Your task to perform on an android device: Open Chrome and go to settings Image 0: 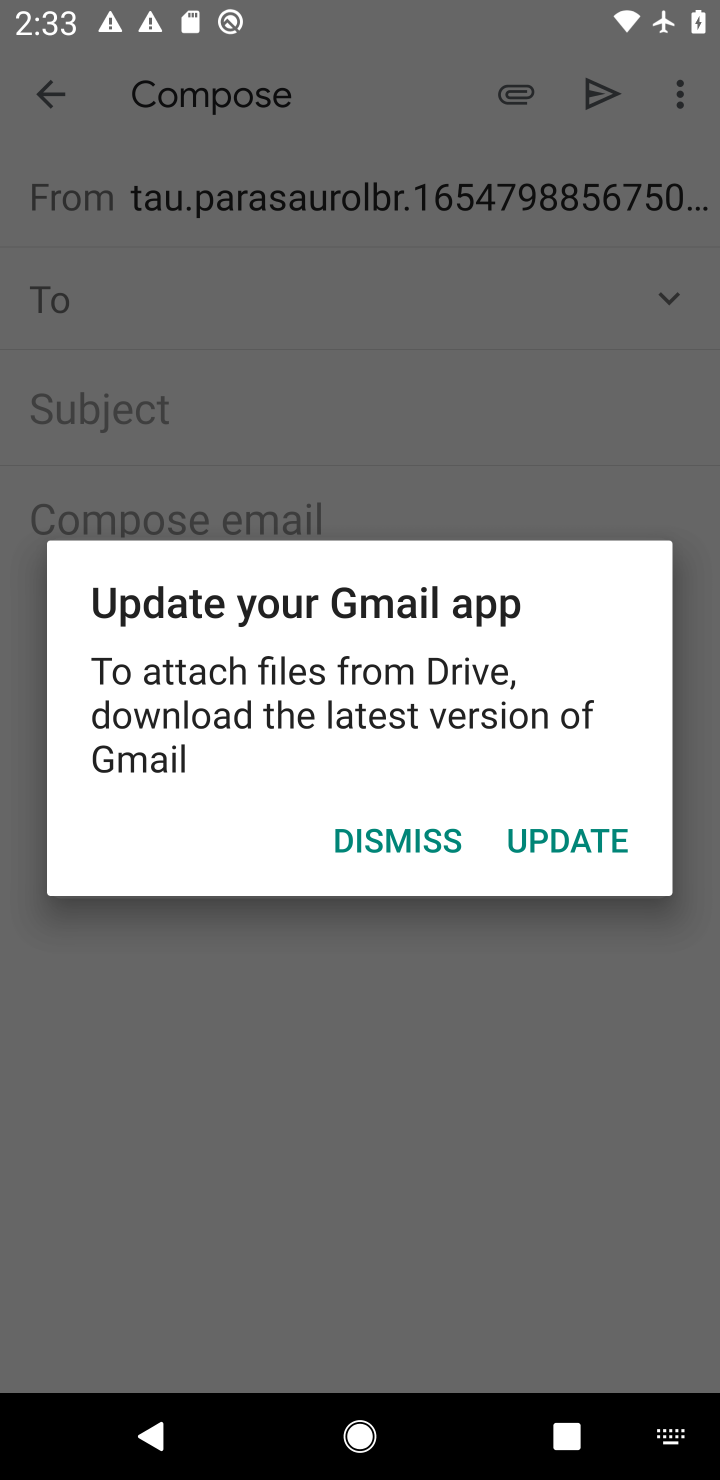
Step 0: press home button
Your task to perform on an android device: Open Chrome and go to settings Image 1: 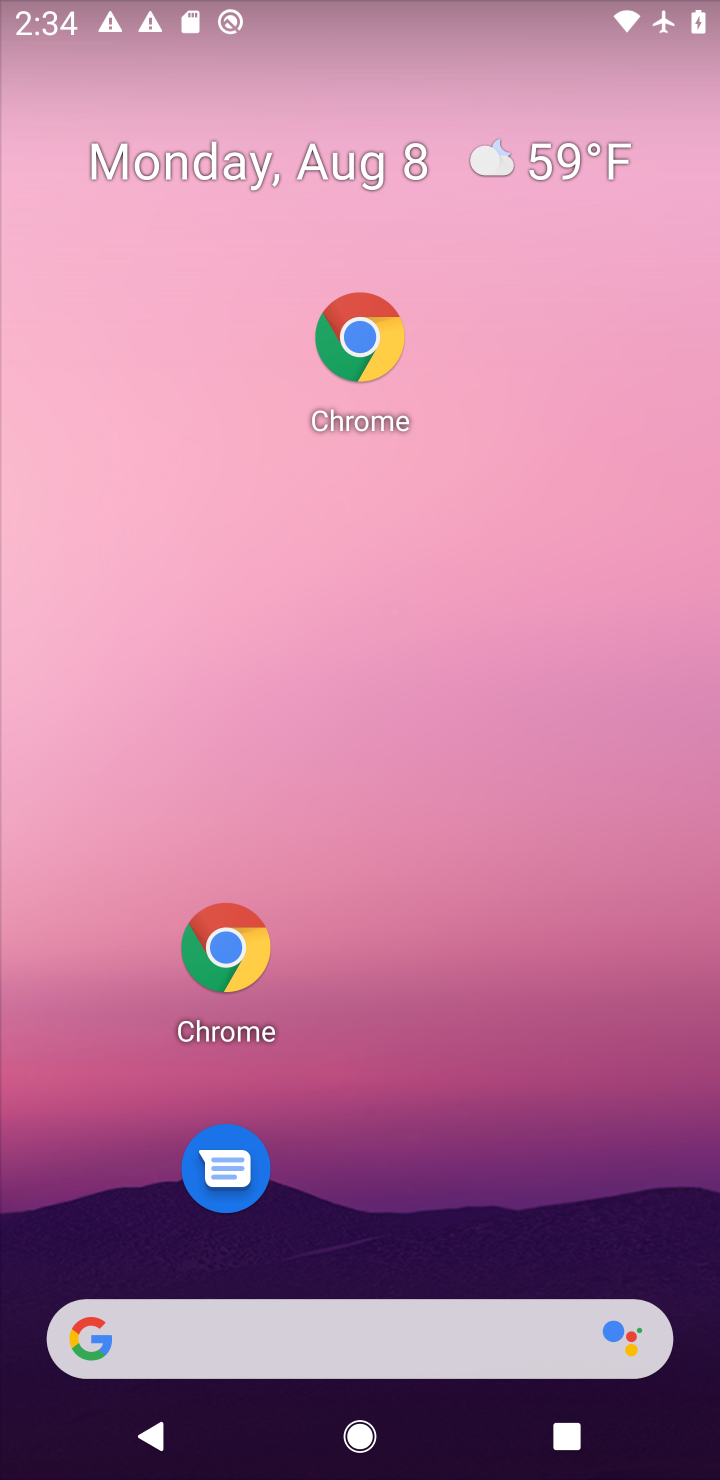
Step 1: click (238, 976)
Your task to perform on an android device: Open Chrome and go to settings Image 2: 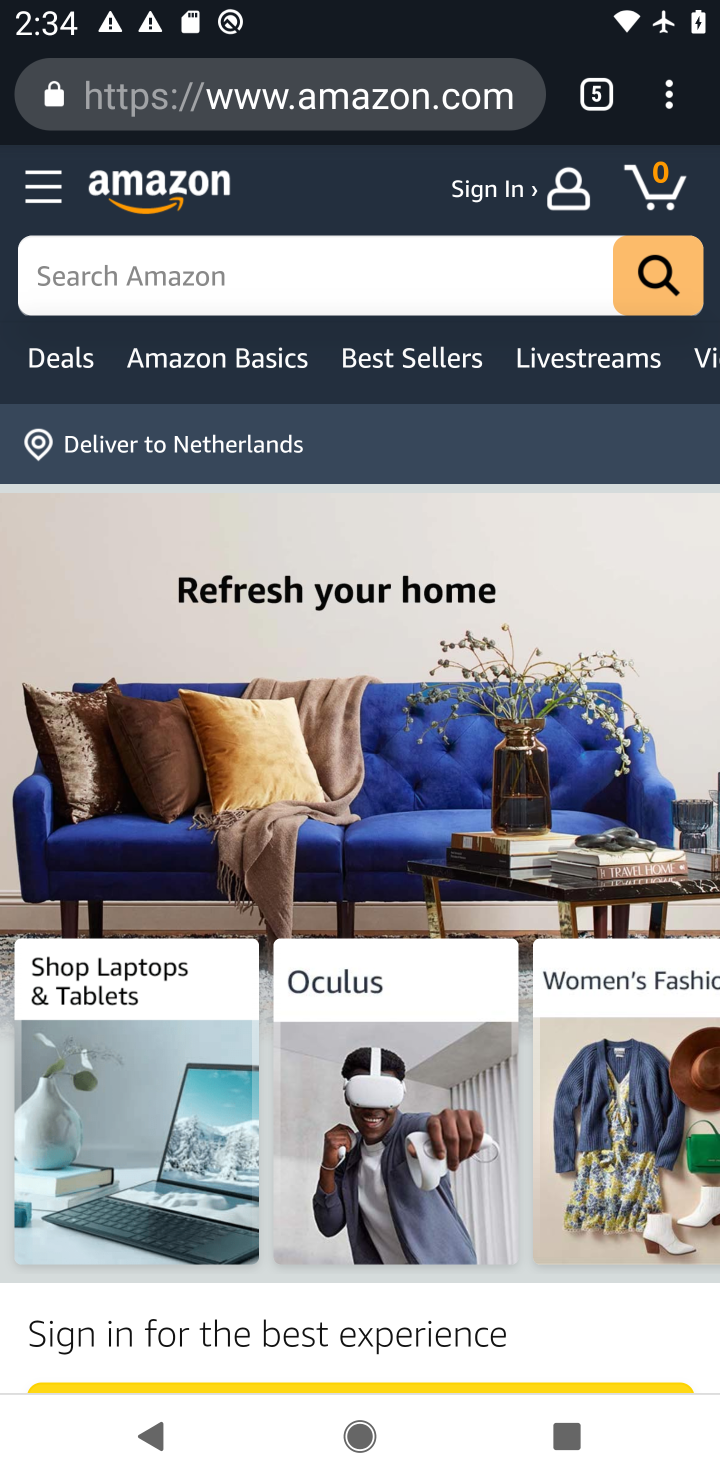
Step 2: click (675, 120)
Your task to perform on an android device: Open Chrome and go to settings Image 3: 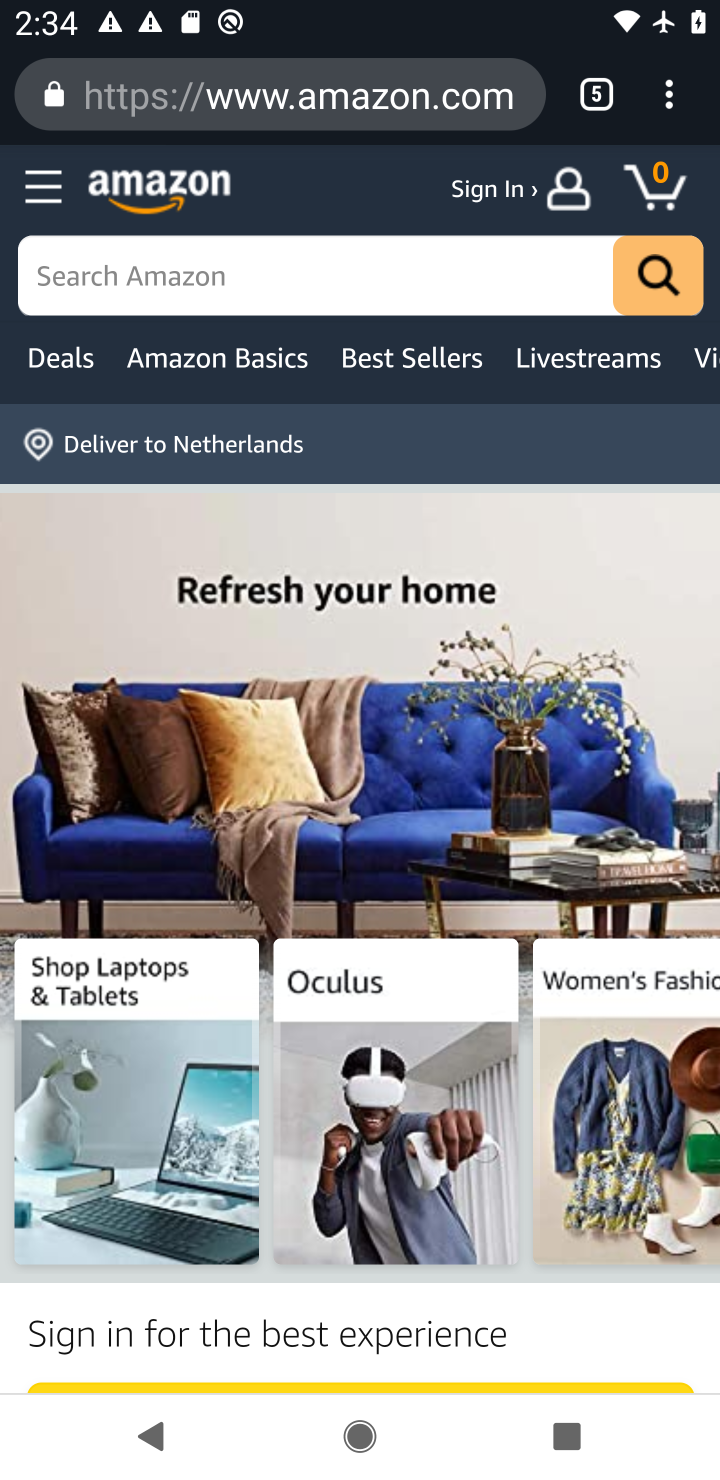
Step 3: task complete